Your task to perform on an android device: uninstall "Yahoo Mail" Image 0: 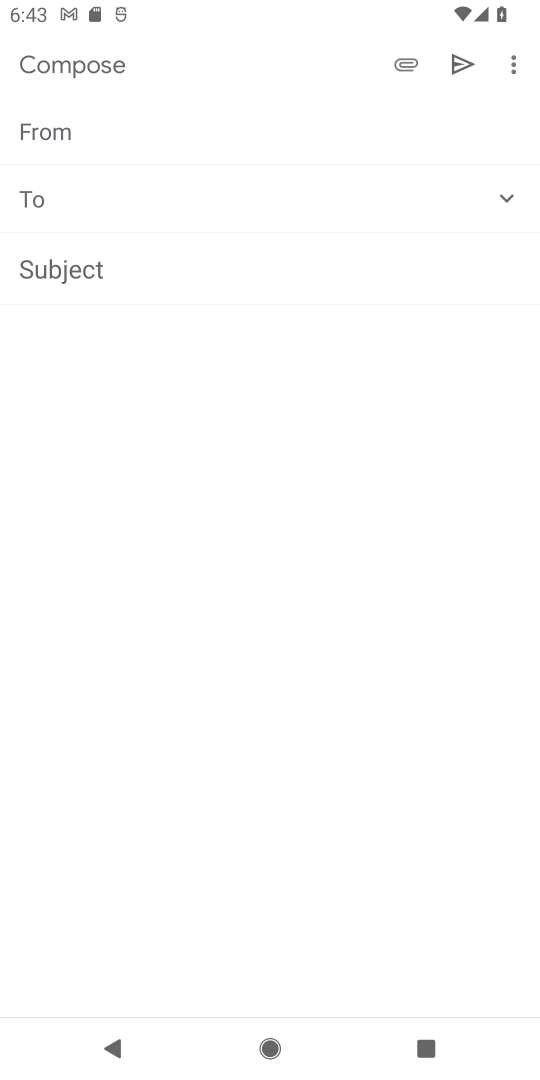
Step 0: click (336, 1077)
Your task to perform on an android device: uninstall "Yahoo Mail" Image 1: 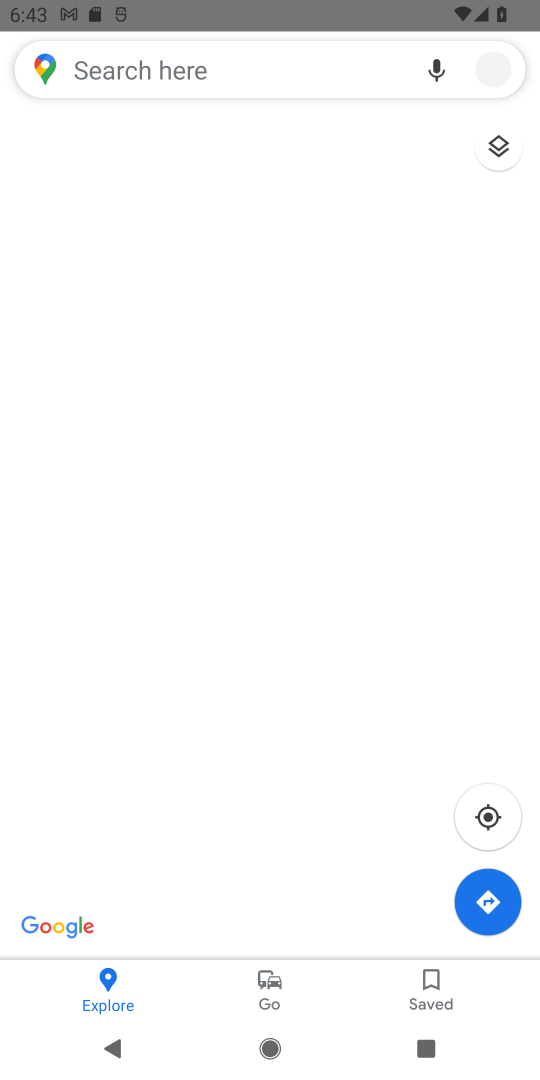
Step 1: press home button
Your task to perform on an android device: uninstall "Yahoo Mail" Image 2: 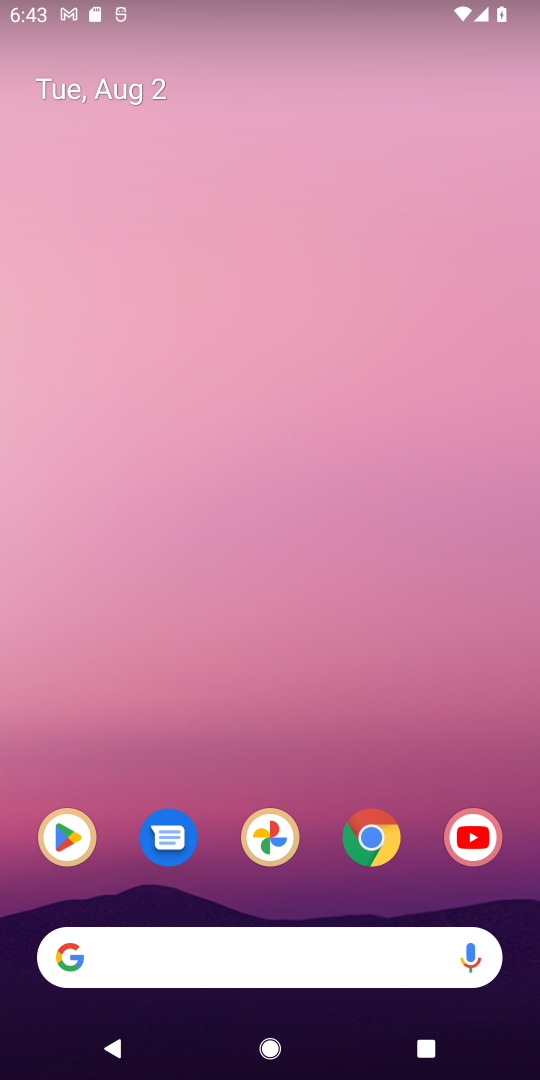
Step 2: press home button
Your task to perform on an android device: uninstall "Yahoo Mail" Image 3: 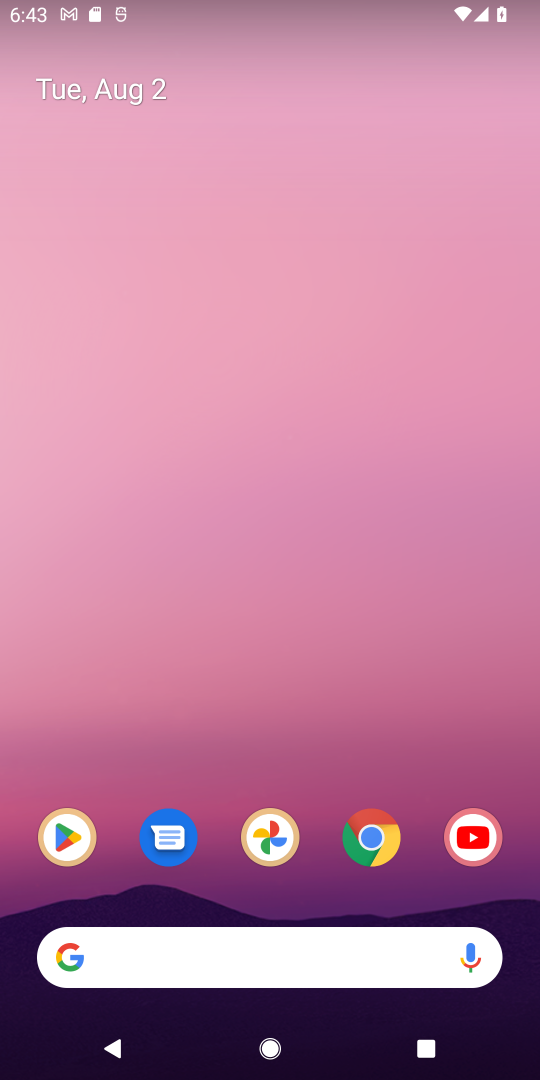
Step 3: drag from (247, 884) to (342, 160)
Your task to perform on an android device: uninstall "Yahoo Mail" Image 4: 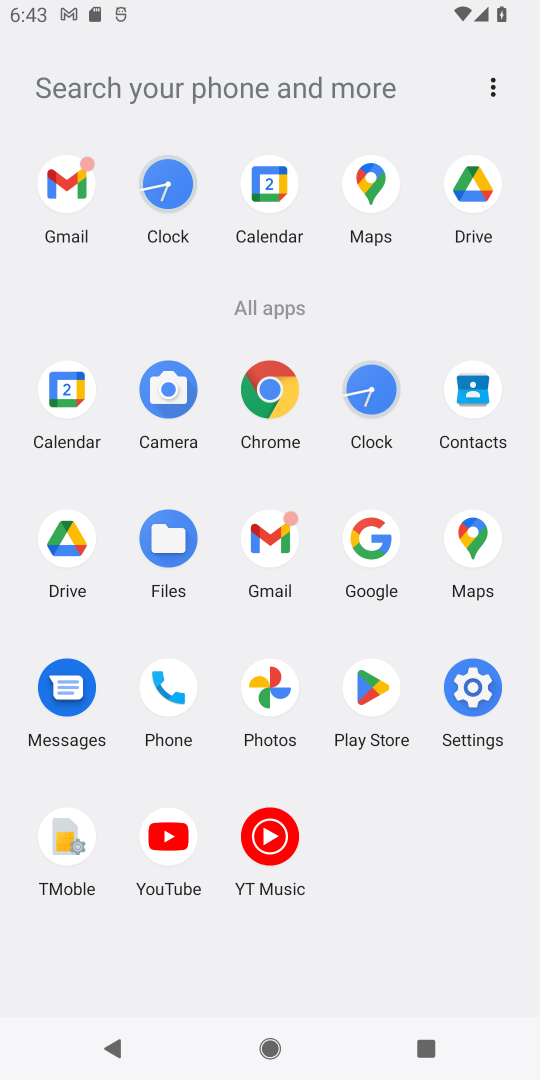
Step 4: click (377, 690)
Your task to perform on an android device: uninstall "Yahoo Mail" Image 5: 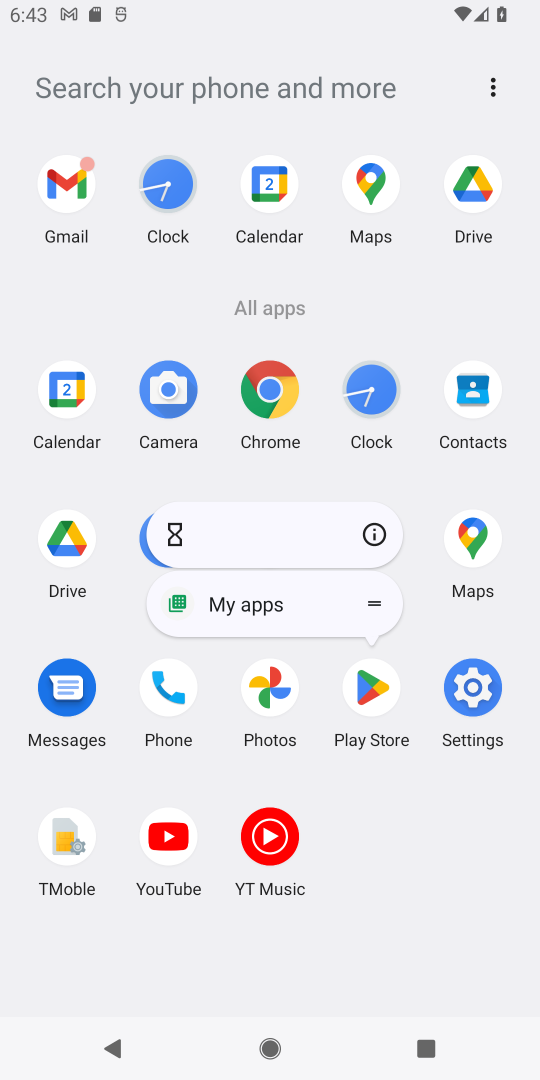
Step 5: click (378, 537)
Your task to perform on an android device: uninstall "Yahoo Mail" Image 6: 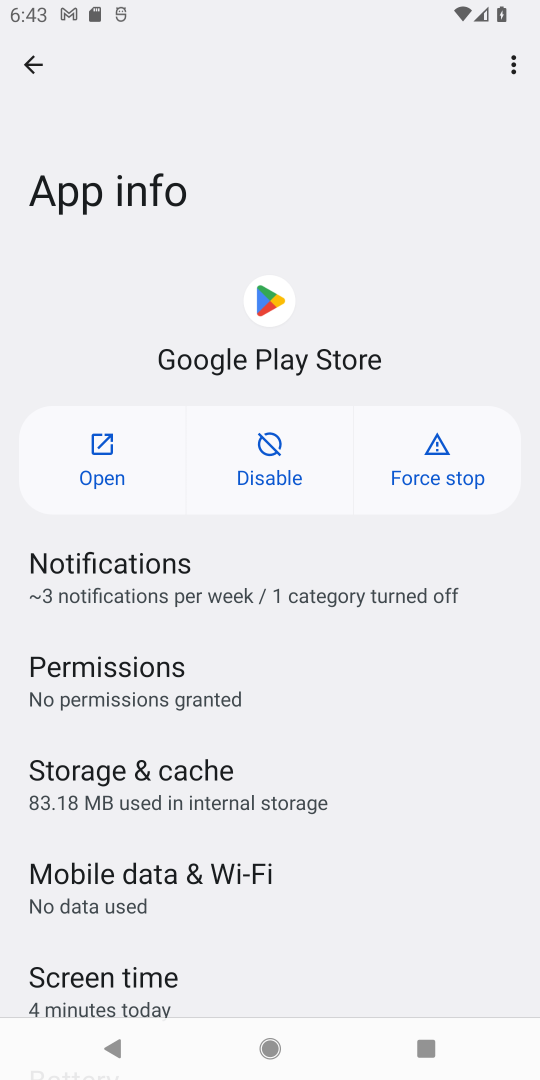
Step 6: click (99, 458)
Your task to perform on an android device: uninstall "Yahoo Mail" Image 7: 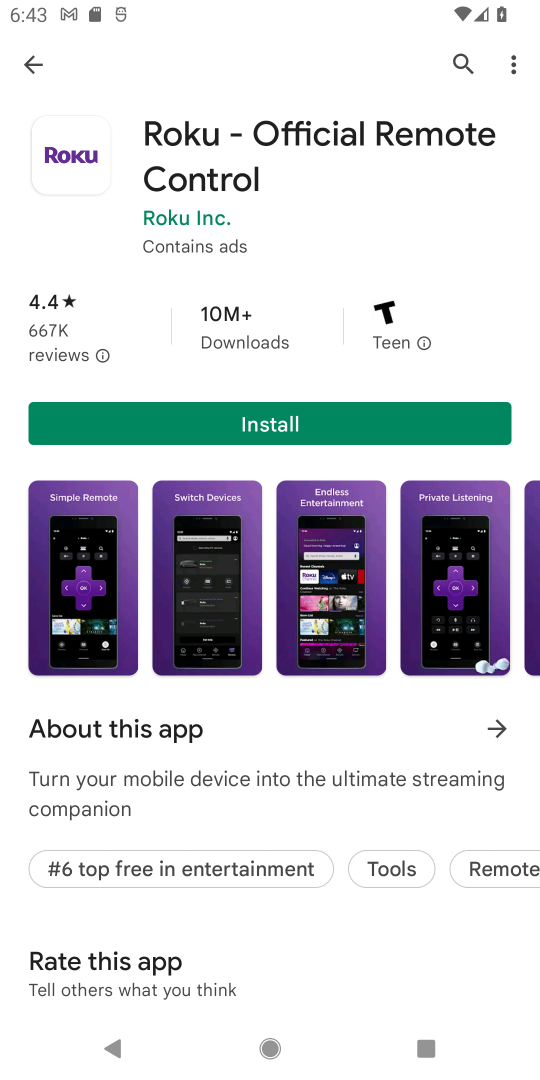
Step 7: click (455, 60)
Your task to perform on an android device: uninstall "Yahoo Mail" Image 8: 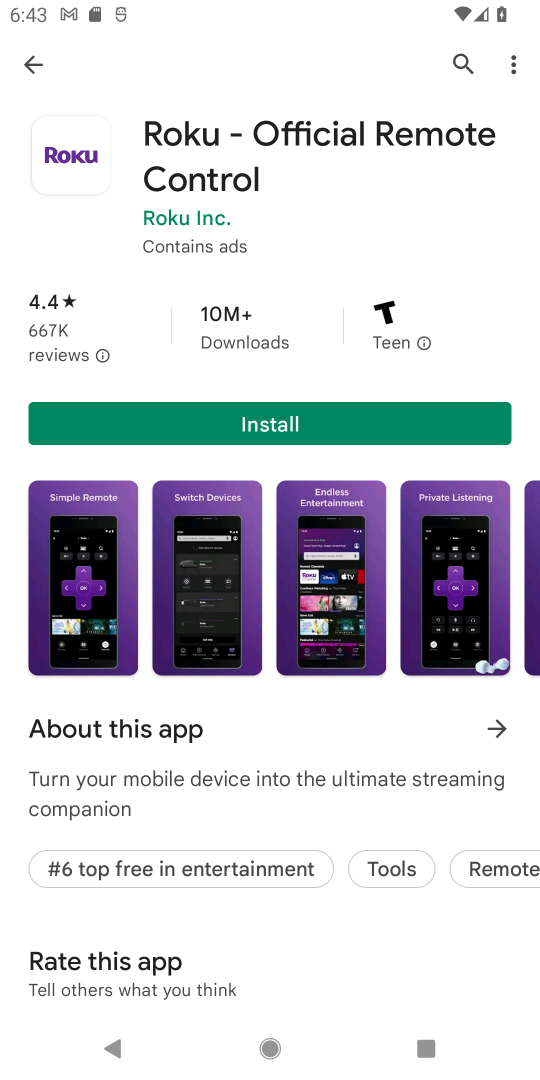
Step 8: click (460, 63)
Your task to perform on an android device: uninstall "Yahoo Mail" Image 9: 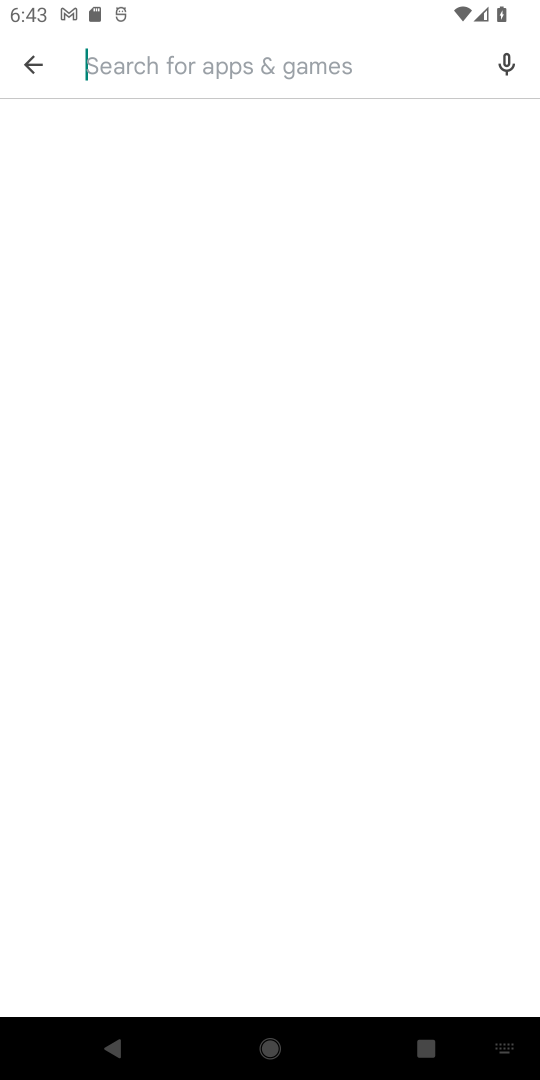
Step 9: click (156, 47)
Your task to perform on an android device: uninstall "Yahoo Mail" Image 10: 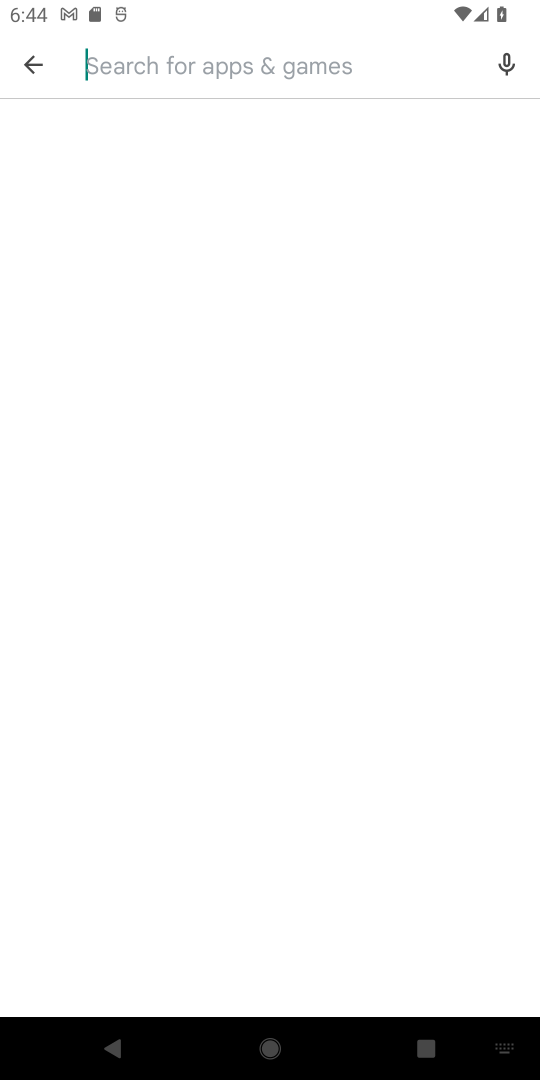
Step 10: type "Yahoo Mail"
Your task to perform on an android device: uninstall "Yahoo Mail" Image 11: 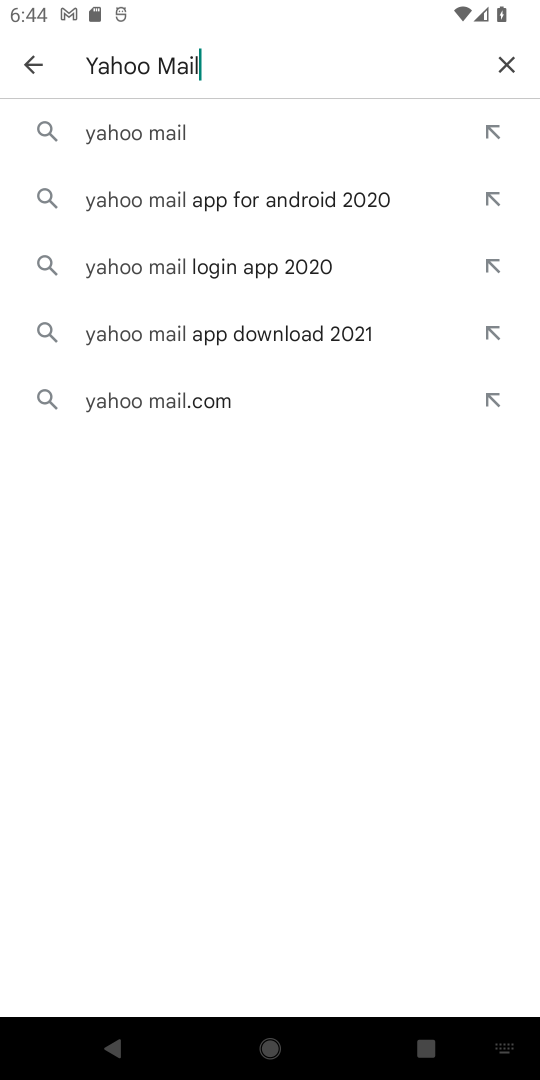
Step 11: click (177, 130)
Your task to perform on an android device: uninstall "Yahoo Mail" Image 12: 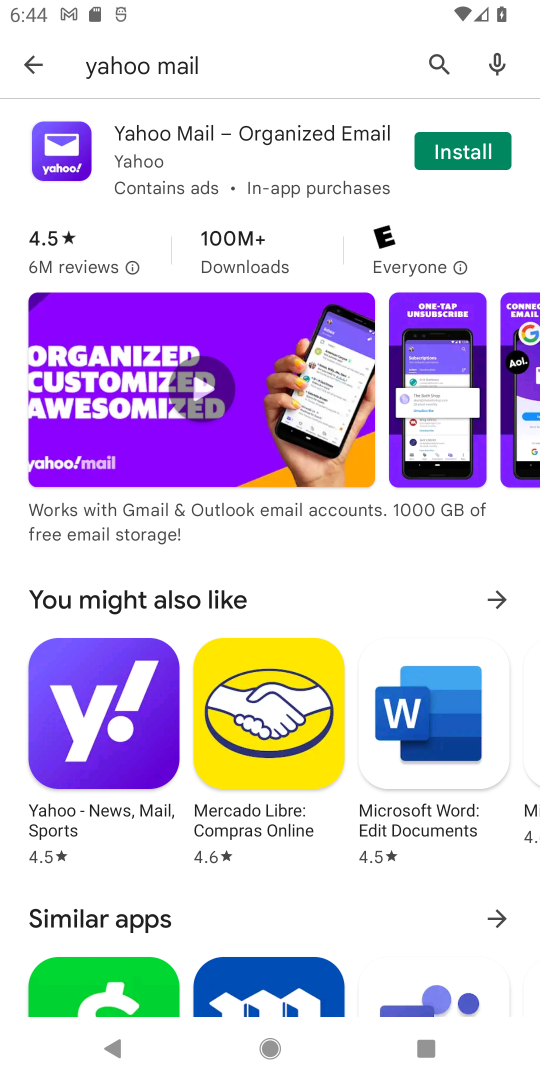
Step 12: click (125, 136)
Your task to perform on an android device: uninstall "Yahoo Mail" Image 13: 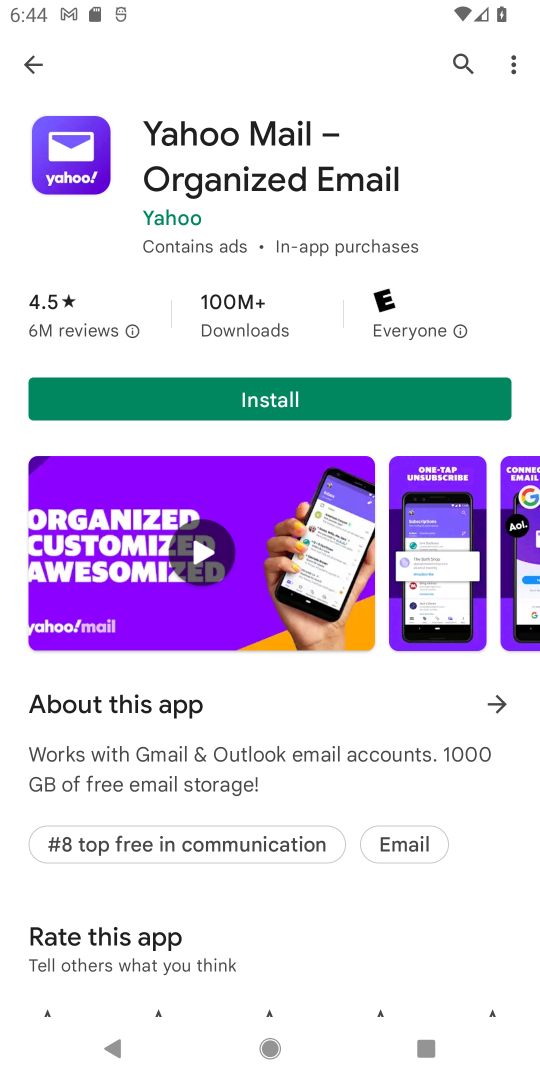
Step 13: task complete